Your task to perform on an android device: Clear the cart on ebay.com. Search for usb-b on ebay.com, select the first entry, add it to the cart, then select checkout. Image 0: 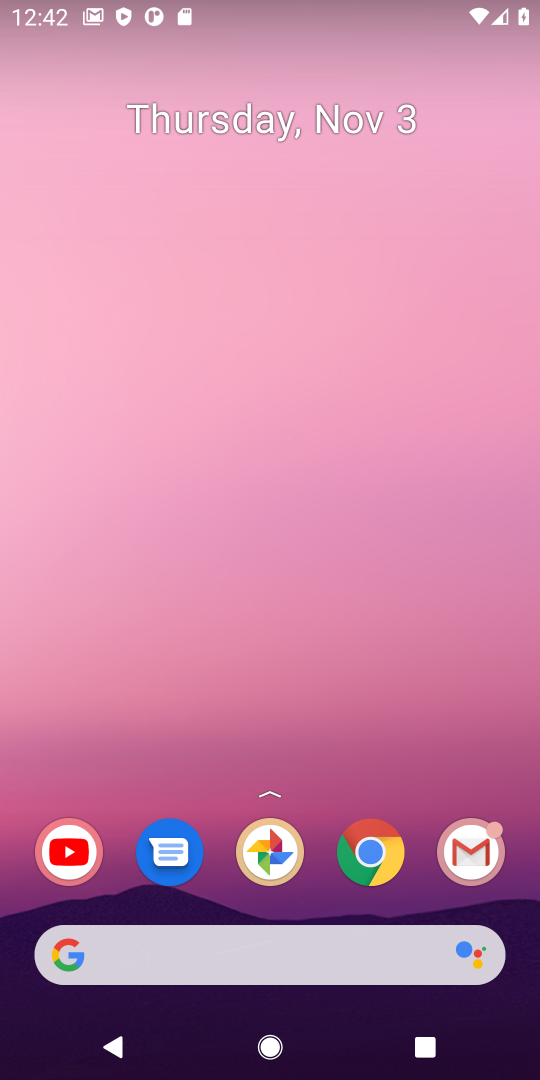
Step 0: click (368, 855)
Your task to perform on an android device: Clear the cart on ebay.com. Search for usb-b on ebay.com, select the first entry, add it to the cart, then select checkout. Image 1: 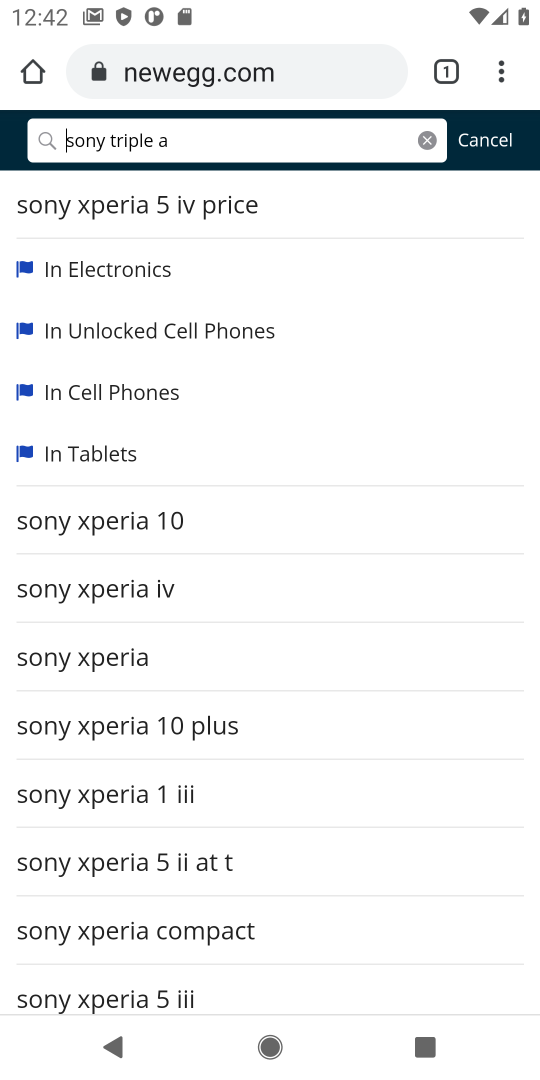
Step 1: click (193, 69)
Your task to perform on an android device: Clear the cart on ebay.com. Search for usb-b on ebay.com, select the first entry, add it to the cart, then select checkout. Image 2: 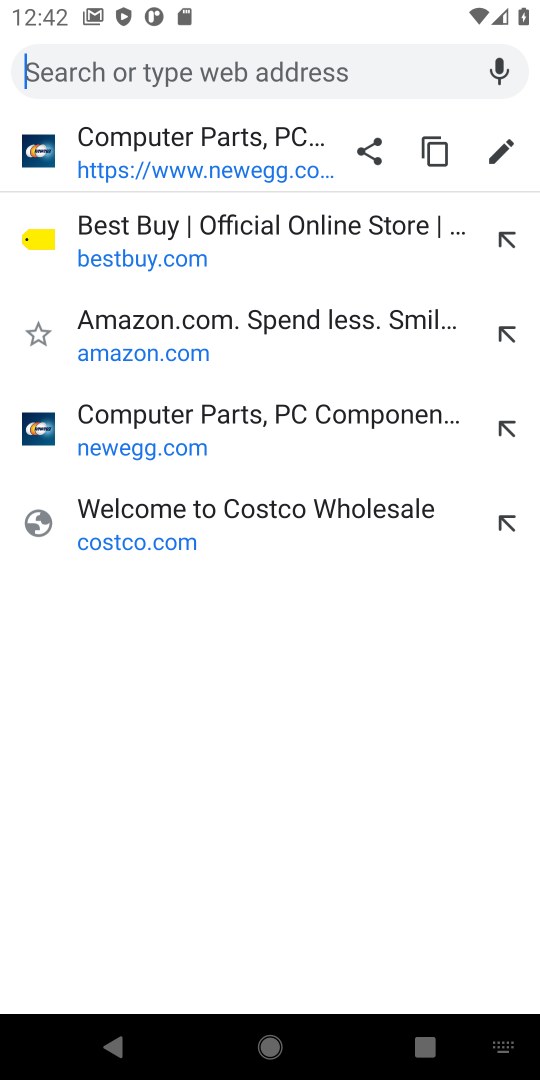
Step 2: type "ebay.com"
Your task to perform on an android device: Clear the cart on ebay.com. Search for usb-b on ebay.com, select the first entry, add it to the cart, then select checkout. Image 3: 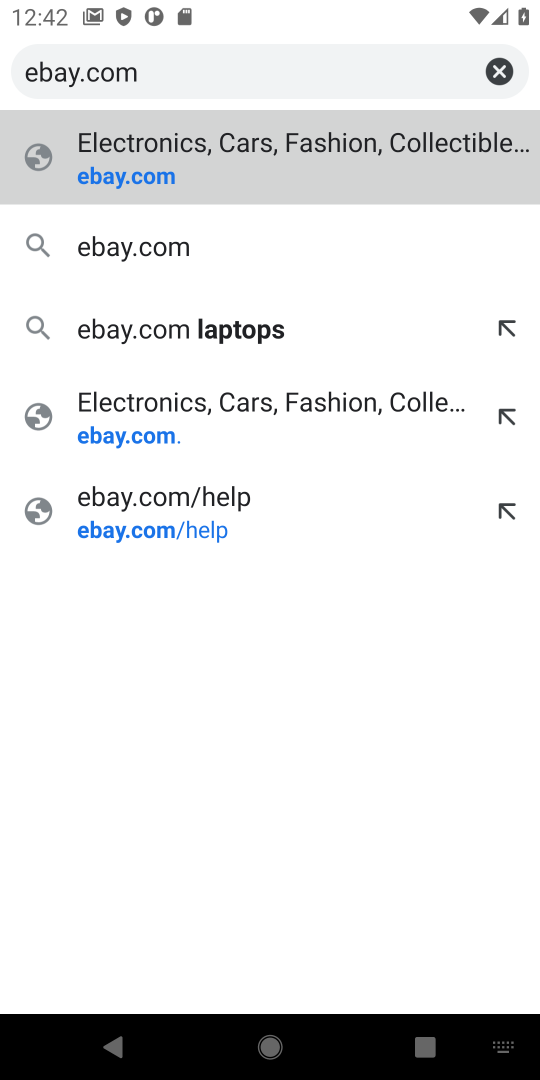
Step 3: click (138, 177)
Your task to perform on an android device: Clear the cart on ebay.com. Search for usb-b on ebay.com, select the first entry, add it to the cart, then select checkout. Image 4: 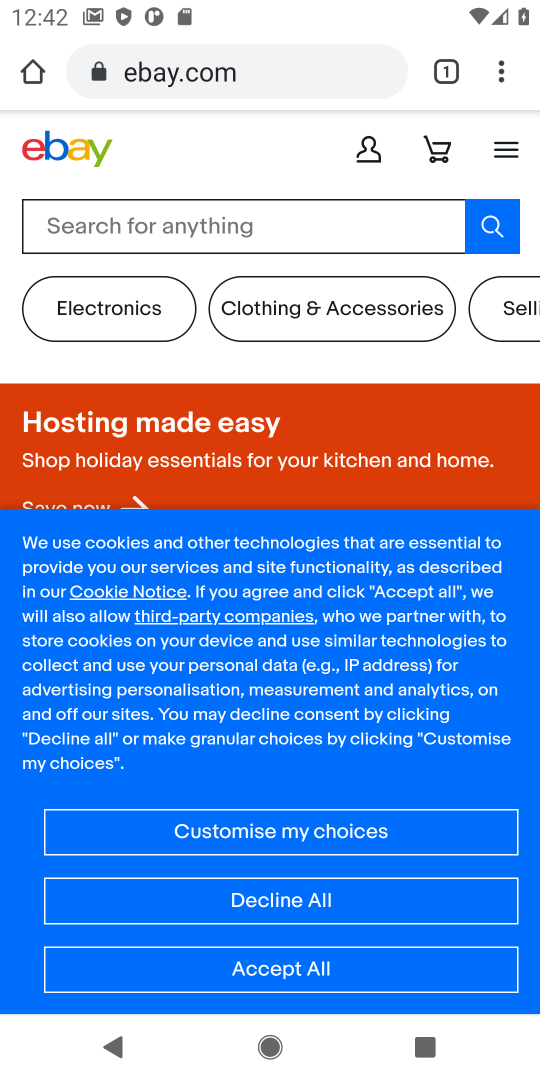
Step 4: click (438, 153)
Your task to perform on an android device: Clear the cart on ebay.com. Search for usb-b on ebay.com, select the first entry, add it to the cart, then select checkout. Image 5: 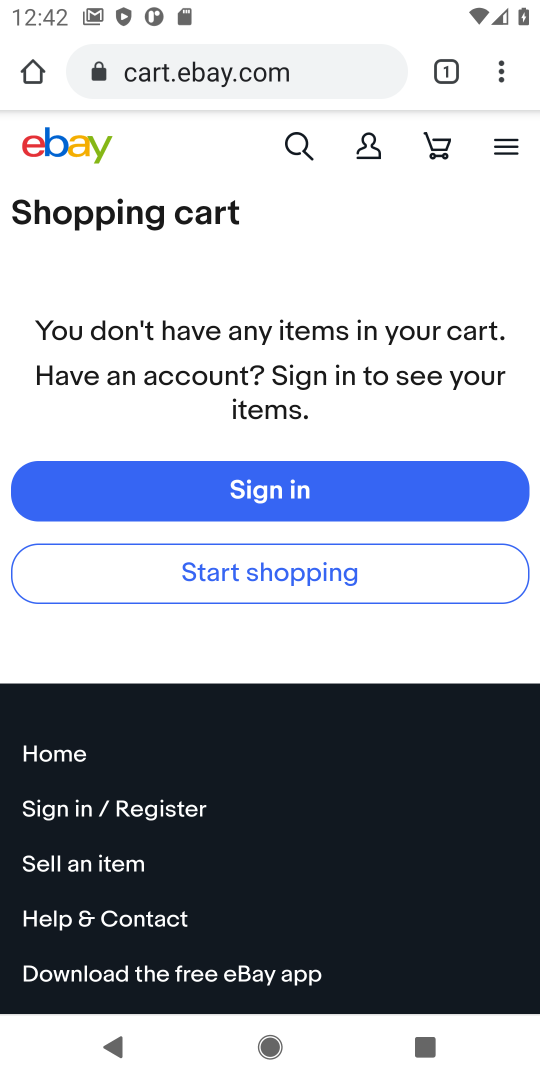
Step 5: click (294, 145)
Your task to perform on an android device: Clear the cart on ebay.com. Search for usb-b on ebay.com, select the first entry, add it to the cart, then select checkout. Image 6: 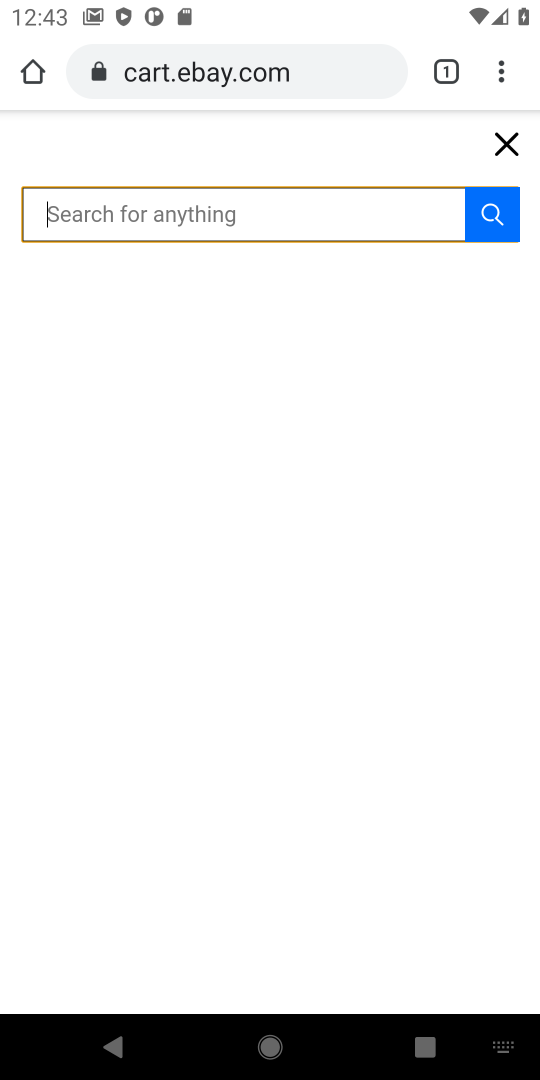
Step 6: type " usb-b"
Your task to perform on an android device: Clear the cart on ebay.com. Search for usb-b on ebay.com, select the first entry, add it to the cart, then select checkout. Image 7: 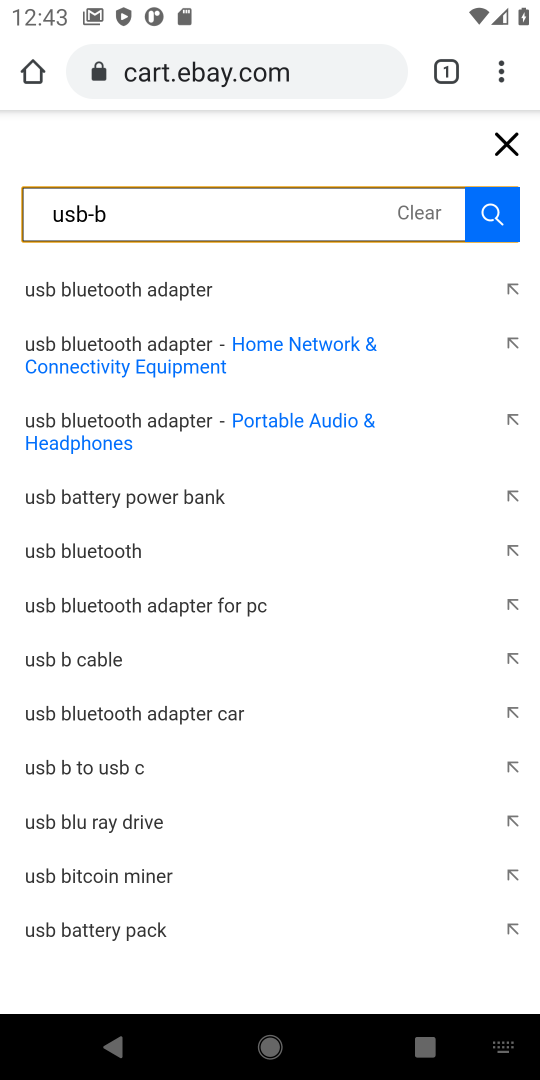
Step 7: click (492, 223)
Your task to perform on an android device: Clear the cart on ebay.com. Search for usb-b on ebay.com, select the first entry, add it to the cart, then select checkout. Image 8: 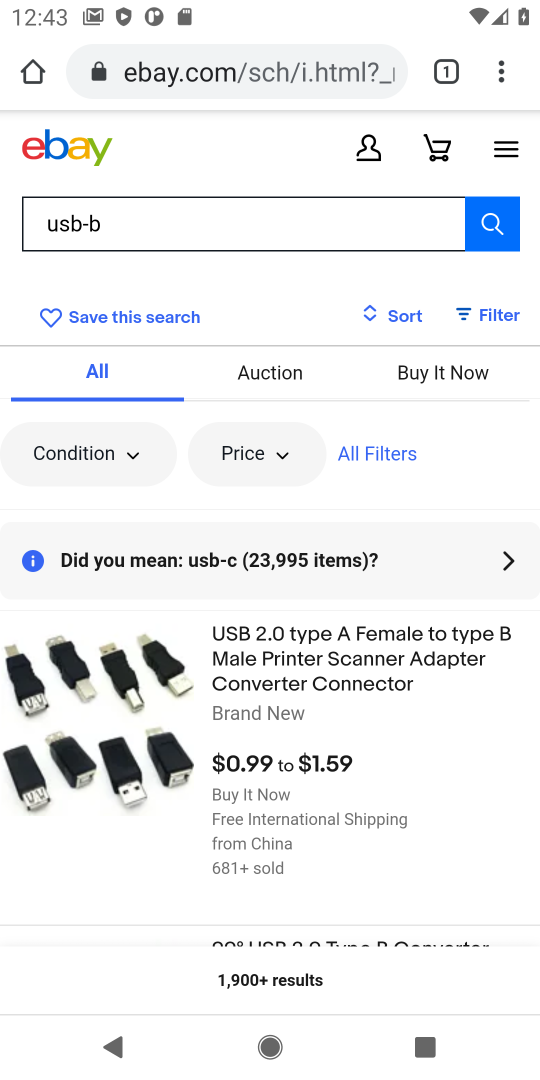
Step 8: click (201, 769)
Your task to perform on an android device: Clear the cart on ebay.com. Search for usb-b on ebay.com, select the first entry, add it to the cart, then select checkout. Image 9: 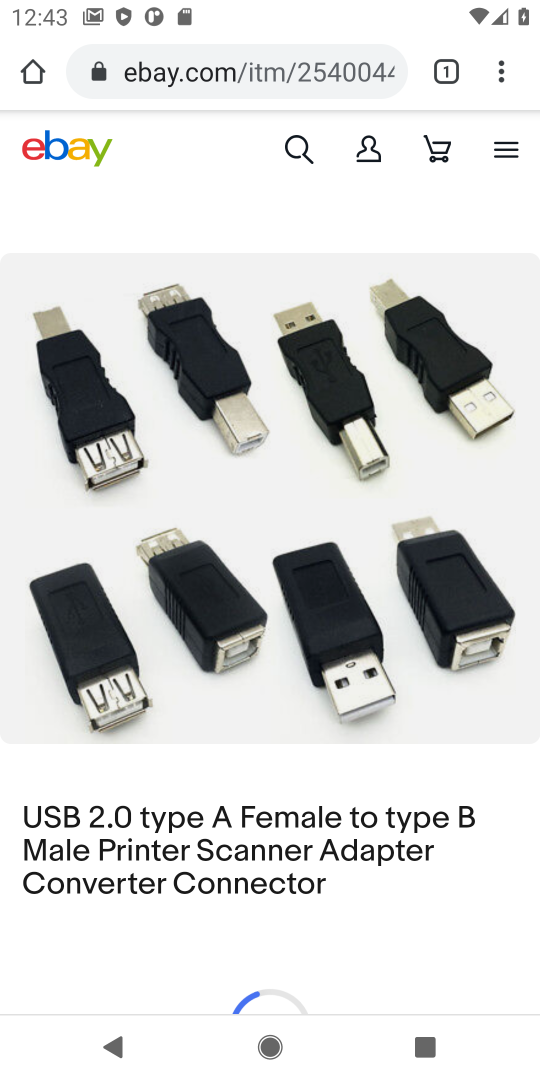
Step 9: drag from (297, 772) to (305, 391)
Your task to perform on an android device: Clear the cart on ebay.com. Search for usb-b on ebay.com, select the first entry, add it to the cart, then select checkout. Image 10: 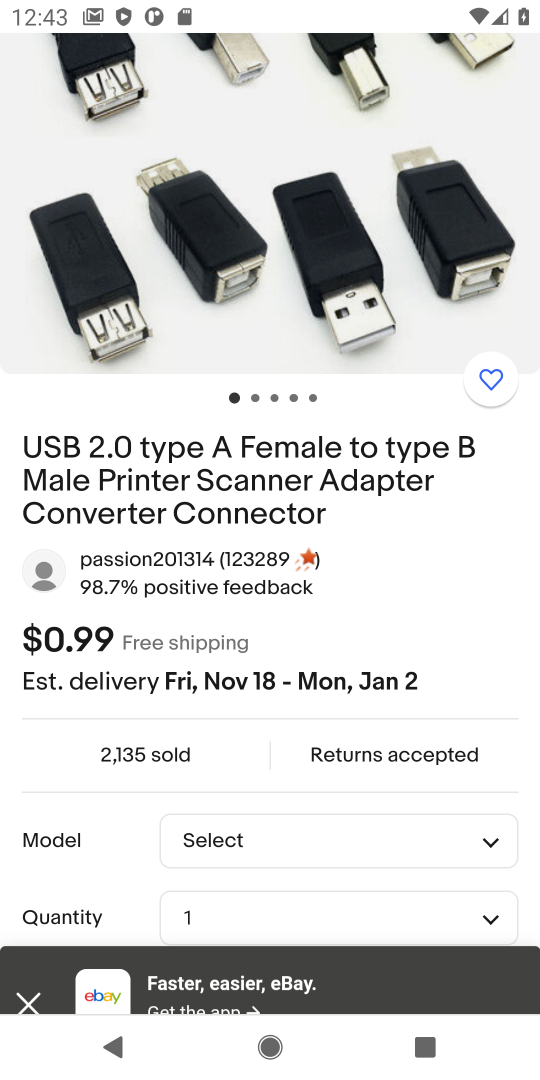
Step 10: drag from (262, 734) to (279, 344)
Your task to perform on an android device: Clear the cart on ebay.com. Search for usb-b on ebay.com, select the first entry, add it to the cart, then select checkout. Image 11: 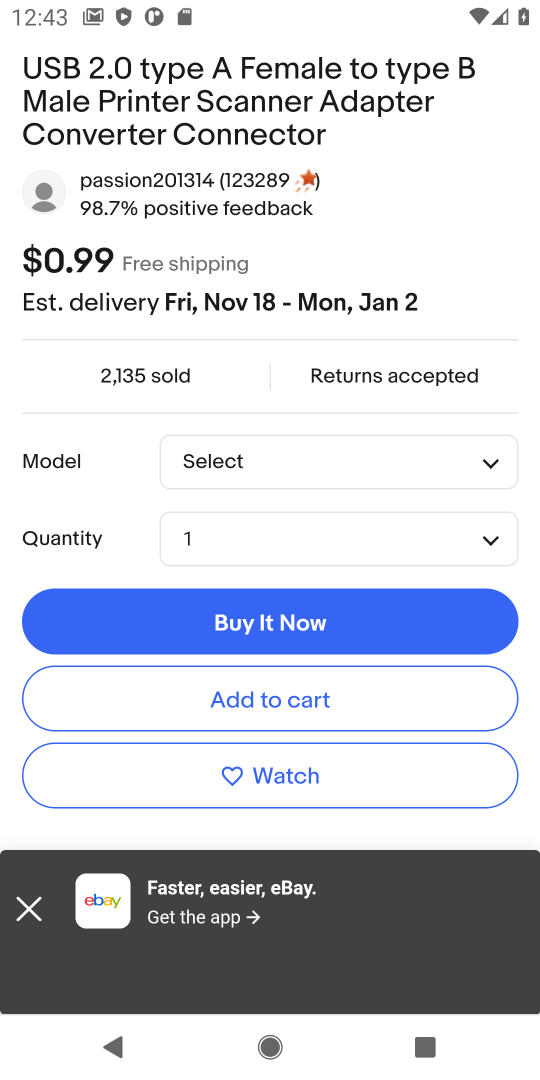
Step 11: click (245, 700)
Your task to perform on an android device: Clear the cart on ebay.com. Search for usb-b on ebay.com, select the first entry, add it to the cart, then select checkout. Image 12: 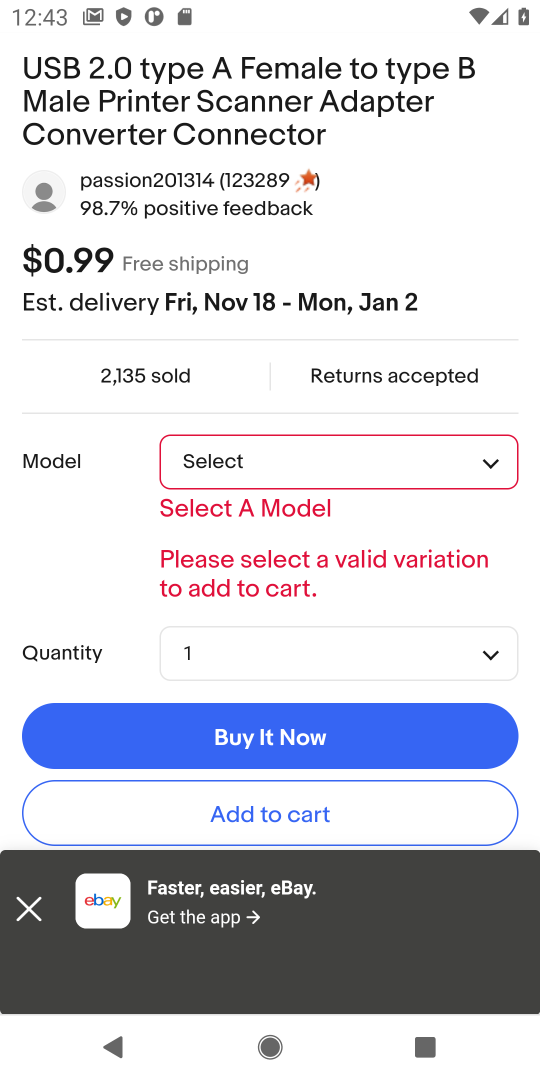
Step 12: click (486, 468)
Your task to perform on an android device: Clear the cart on ebay.com. Search for usb-b on ebay.com, select the first entry, add it to the cart, then select checkout. Image 13: 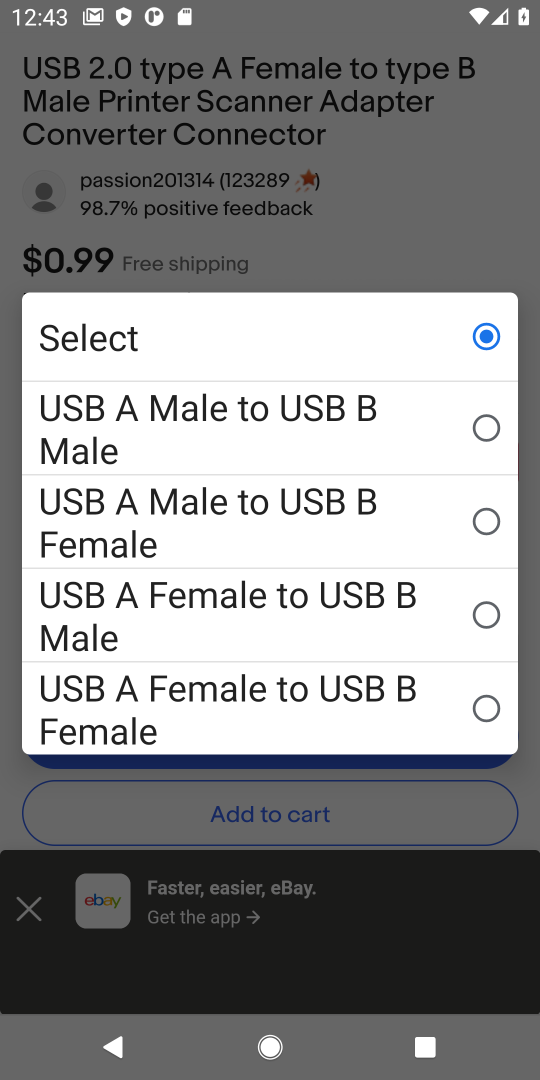
Step 13: click (93, 440)
Your task to perform on an android device: Clear the cart on ebay.com. Search for usb-b on ebay.com, select the first entry, add it to the cart, then select checkout. Image 14: 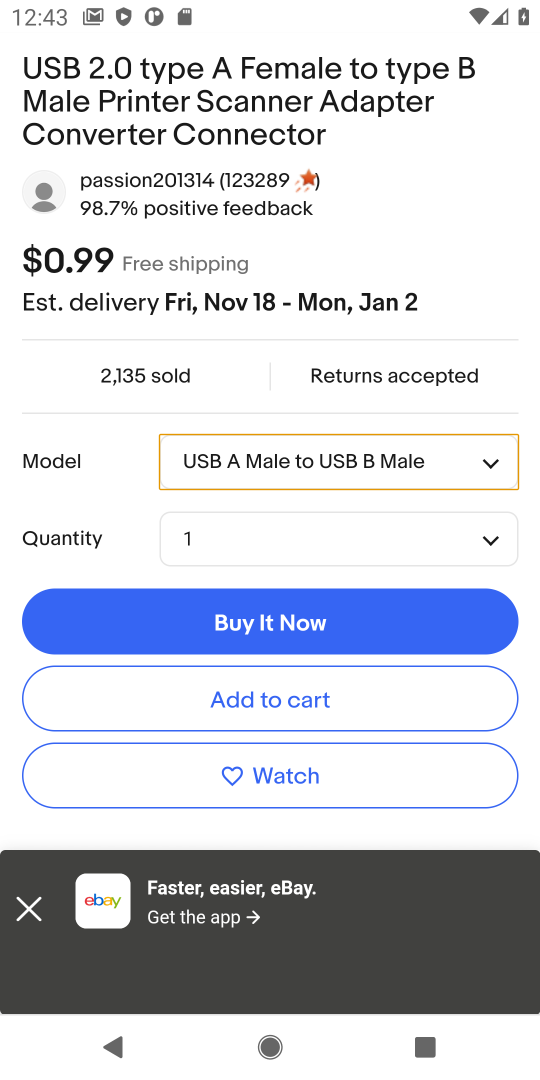
Step 14: click (258, 706)
Your task to perform on an android device: Clear the cart on ebay.com. Search for usb-b on ebay.com, select the first entry, add it to the cart, then select checkout. Image 15: 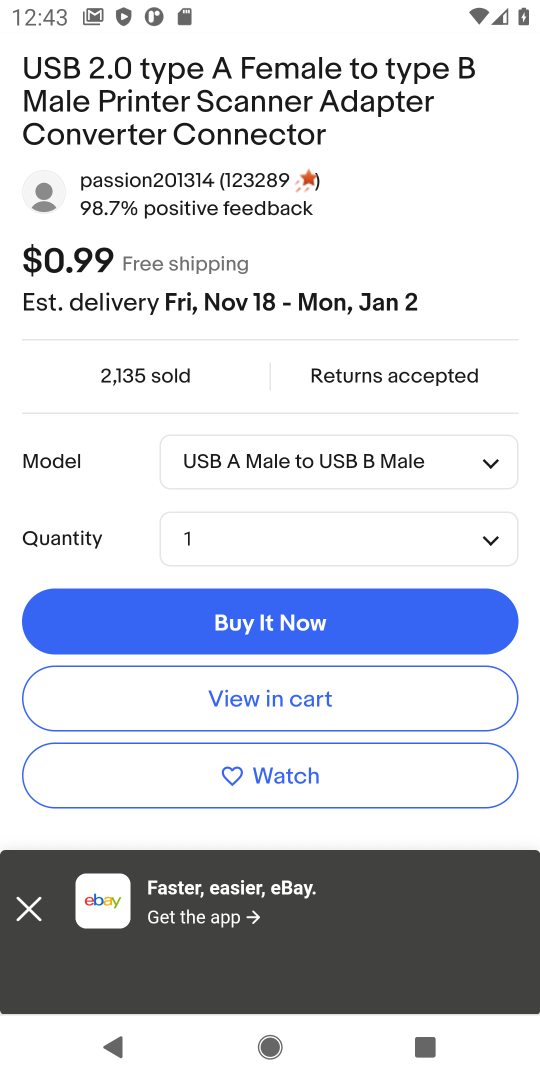
Step 15: click (294, 699)
Your task to perform on an android device: Clear the cart on ebay.com. Search for usb-b on ebay.com, select the first entry, add it to the cart, then select checkout. Image 16: 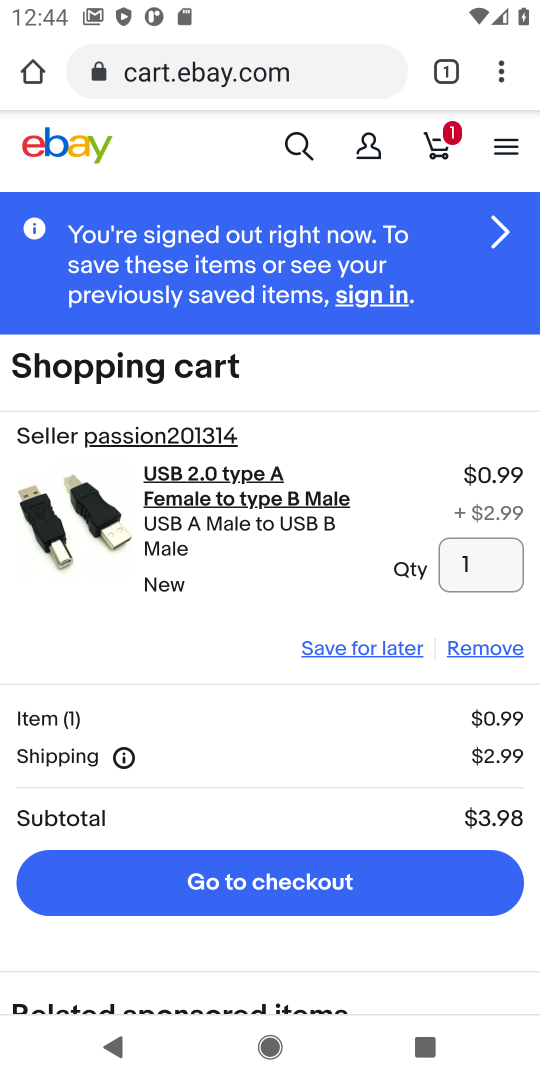
Step 16: click (266, 886)
Your task to perform on an android device: Clear the cart on ebay.com. Search for usb-b on ebay.com, select the first entry, add it to the cart, then select checkout. Image 17: 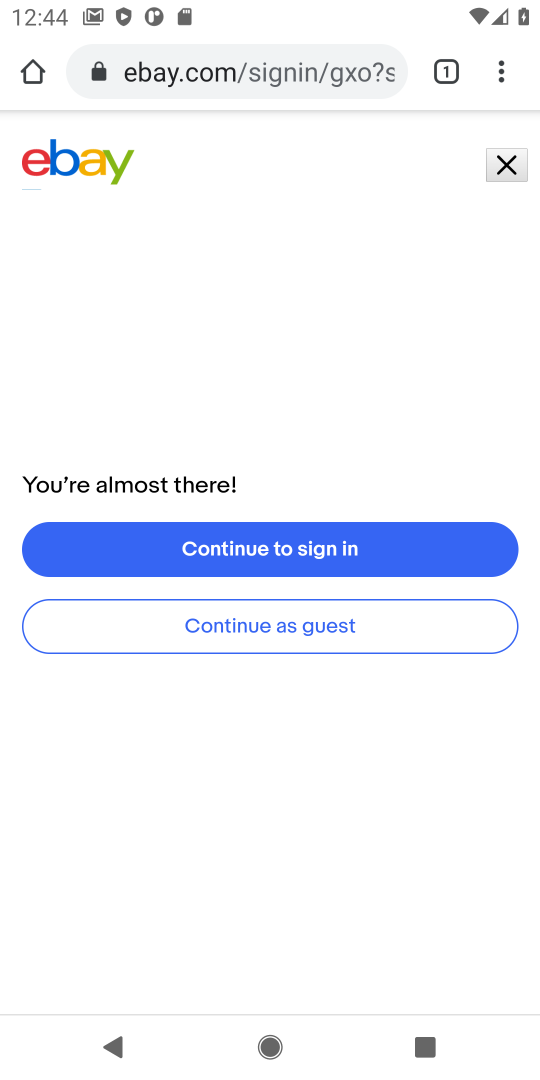
Step 17: task complete